Your task to perform on an android device: install app "Nova Launcher" Image 0: 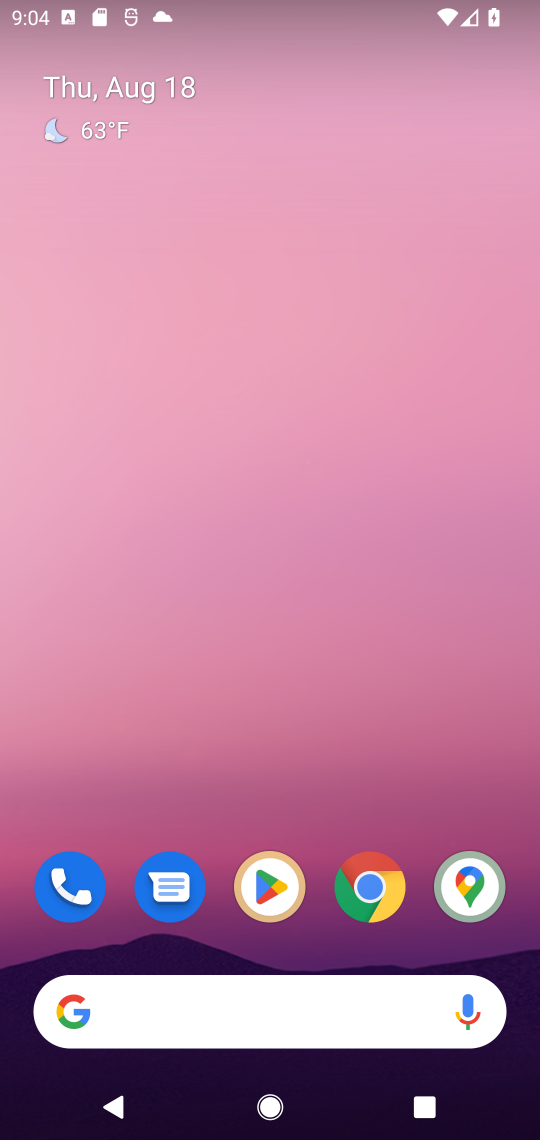
Step 0: click (258, 892)
Your task to perform on an android device: install app "Nova Launcher" Image 1: 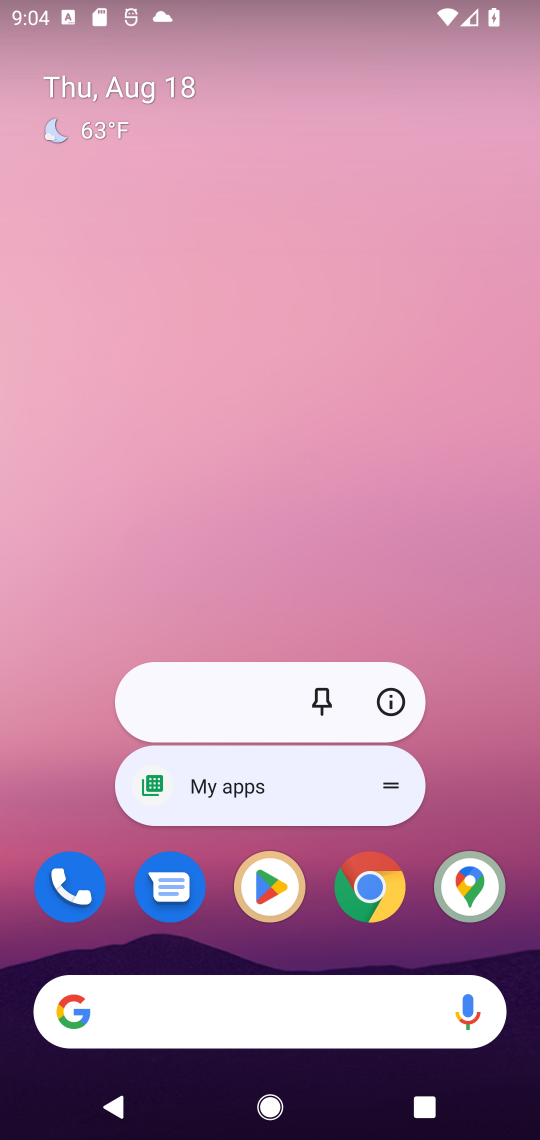
Step 1: click (258, 894)
Your task to perform on an android device: install app "Nova Launcher" Image 2: 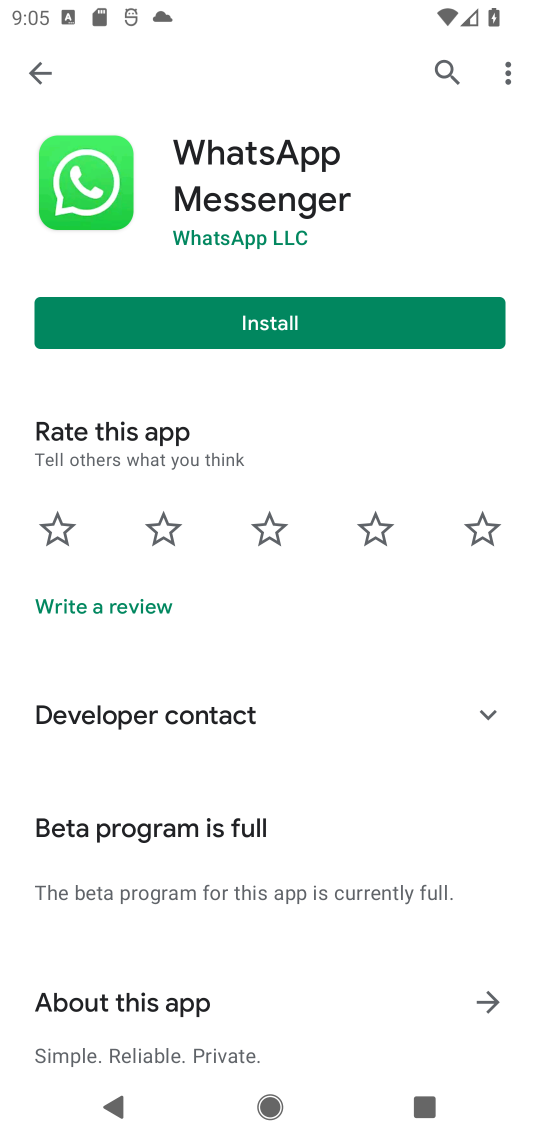
Step 2: click (442, 64)
Your task to perform on an android device: install app "Nova Launcher" Image 3: 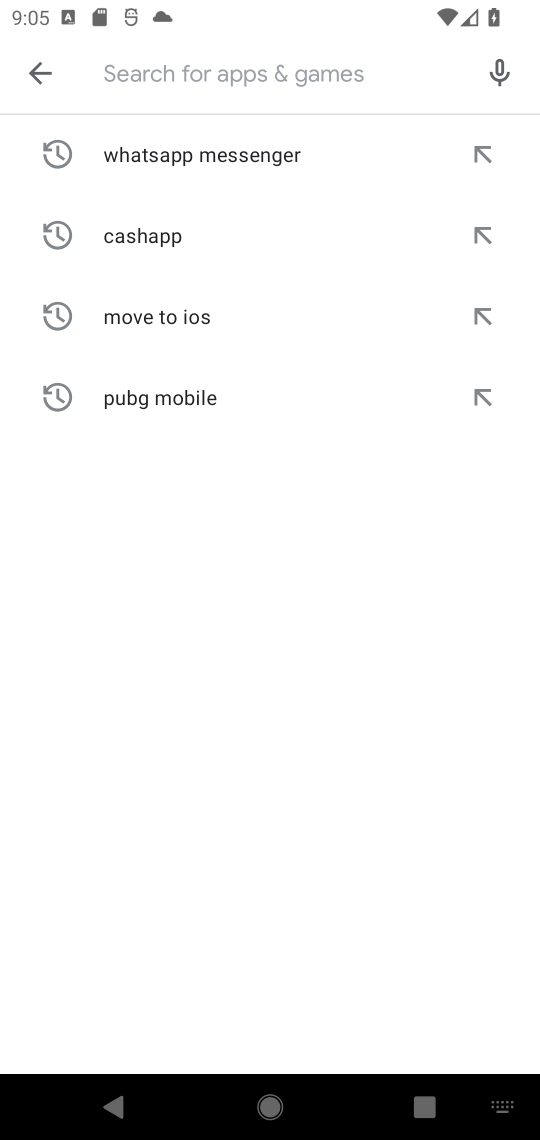
Step 3: type "Nova Launcher"
Your task to perform on an android device: install app "Nova Launcher" Image 4: 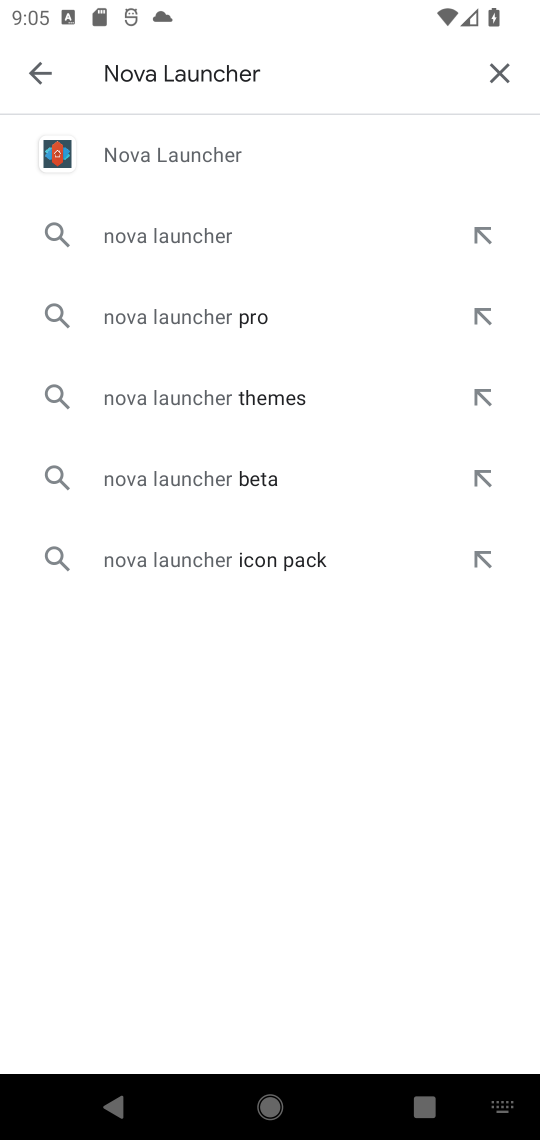
Step 4: click (175, 148)
Your task to perform on an android device: install app "Nova Launcher" Image 5: 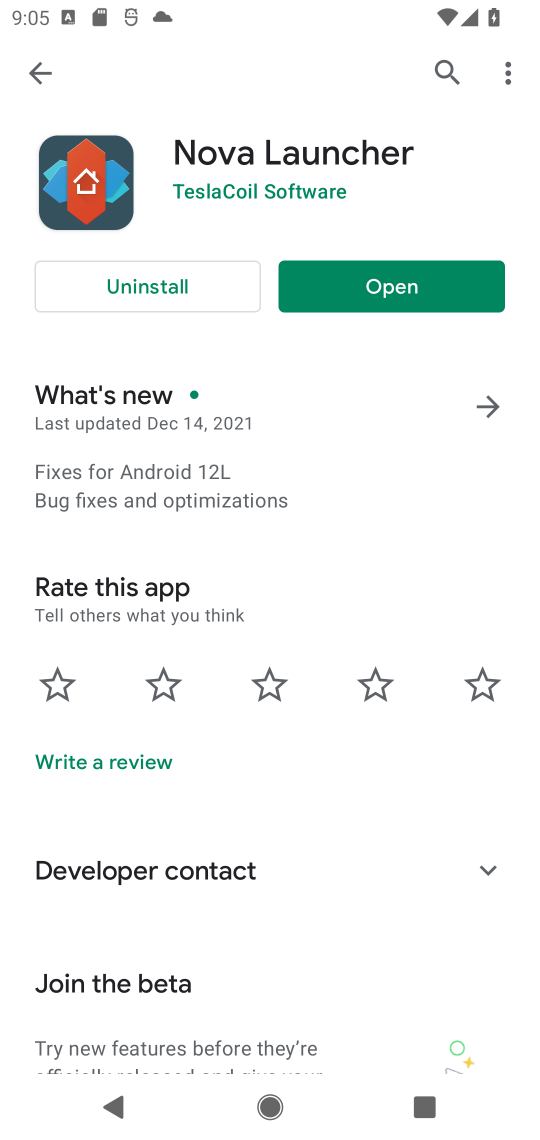
Step 5: task complete